Your task to perform on an android device: turn on location history Image 0: 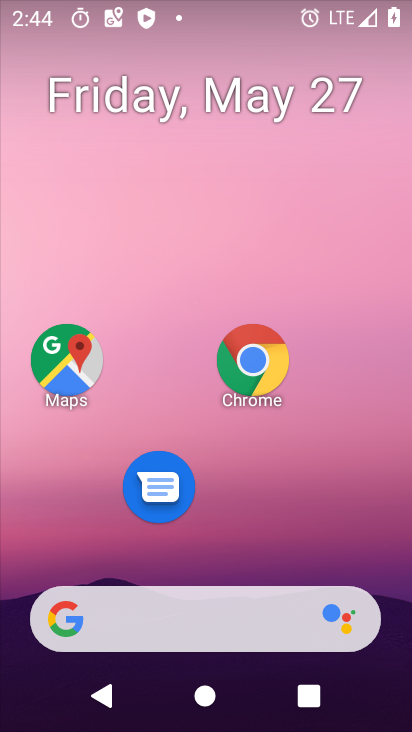
Step 0: drag from (262, 529) to (292, 64)
Your task to perform on an android device: turn on location history Image 1: 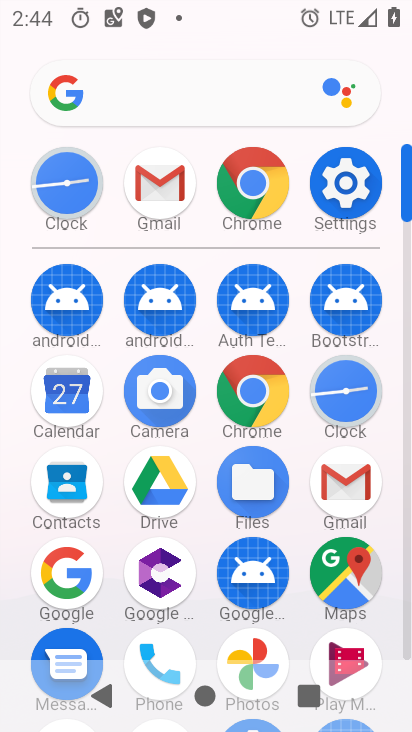
Step 1: click (348, 181)
Your task to perform on an android device: turn on location history Image 2: 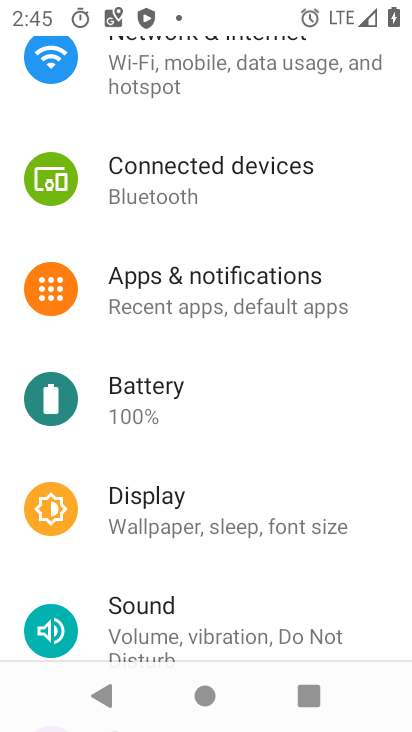
Step 2: drag from (252, 591) to (312, 88)
Your task to perform on an android device: turn on location history Image 3: 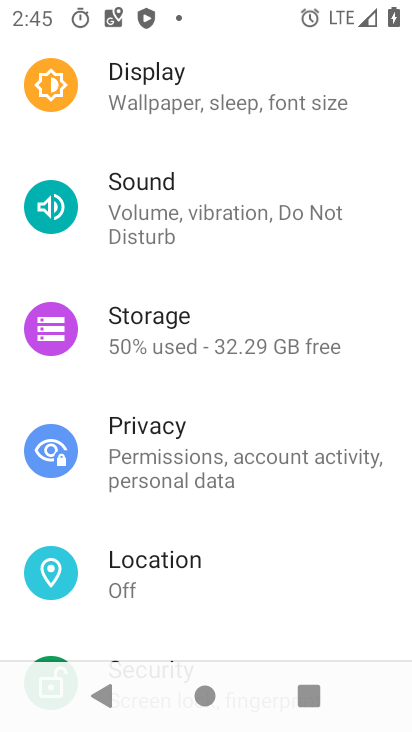
Step 3: click (178, 562)
Your task to perform on an android device: turn on location history Image 4: 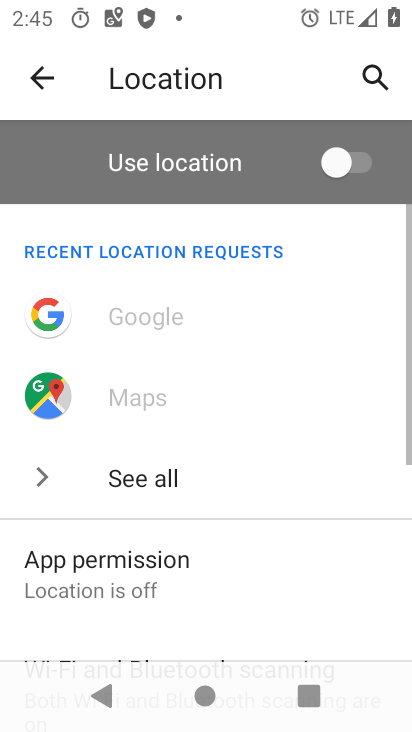
Step 4: drag from (259, 581) to (290, 198)
Your task to perform on an android device: turn on location history Image 5: 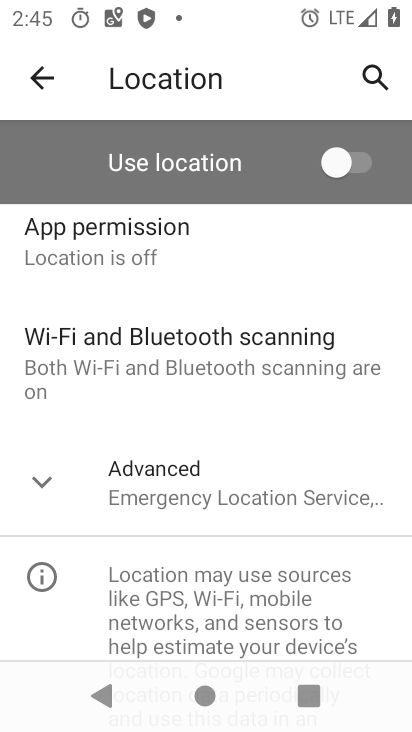
Step 5: click (144, 495)
Your task to perform on an android device: turn on location history Image 6: 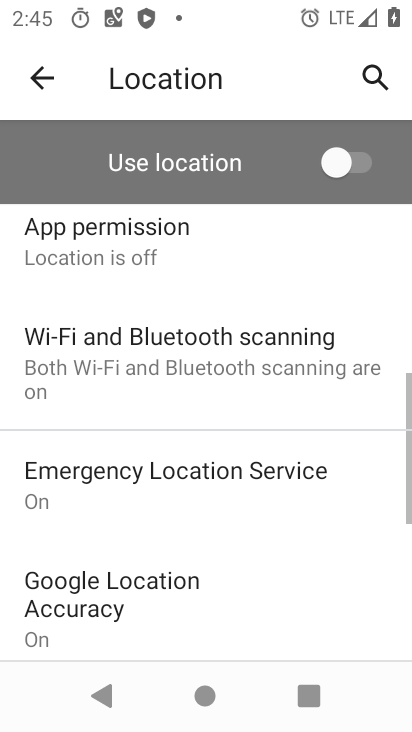
Step 6: drag from (264, 582) to (275, 188)
Your task to perform on an android device: turn on location history Image 7: 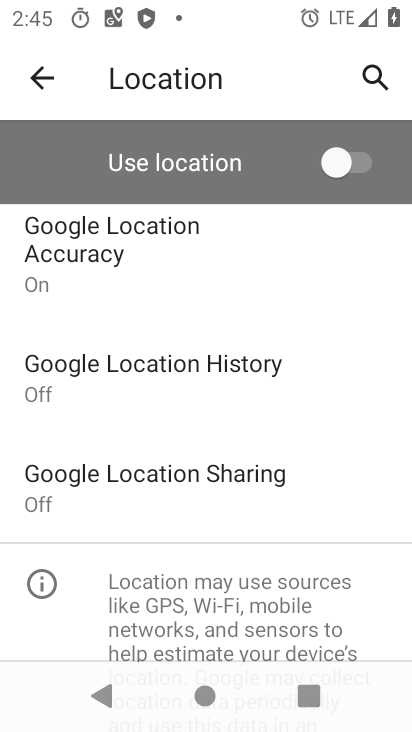
Step 7: click (159, 372)
Your task to perform on an android device: turn on location history Image 8: 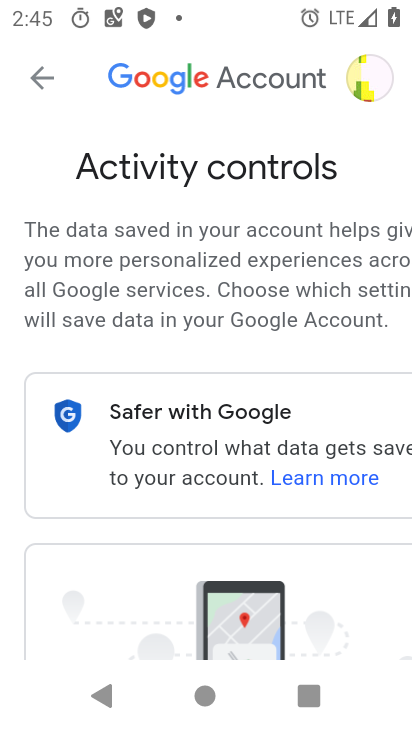
Step 8: task complete